Your task to perform on an android device: turn off javascript in the chrome app Image 0: 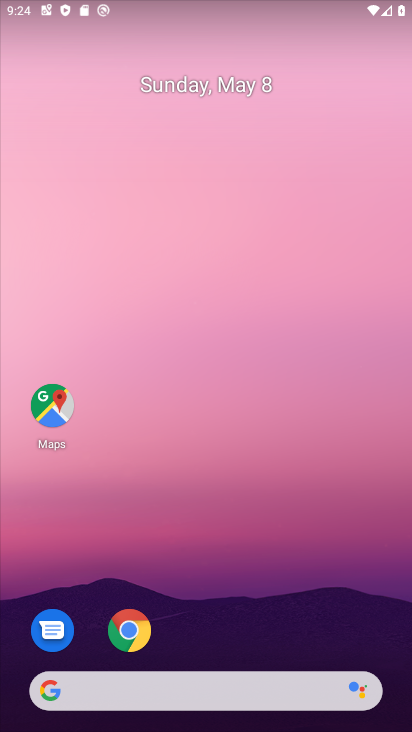
Step 0: press home button
Your task to perform on an android device: turn off javascript in the chrome app Image 1: 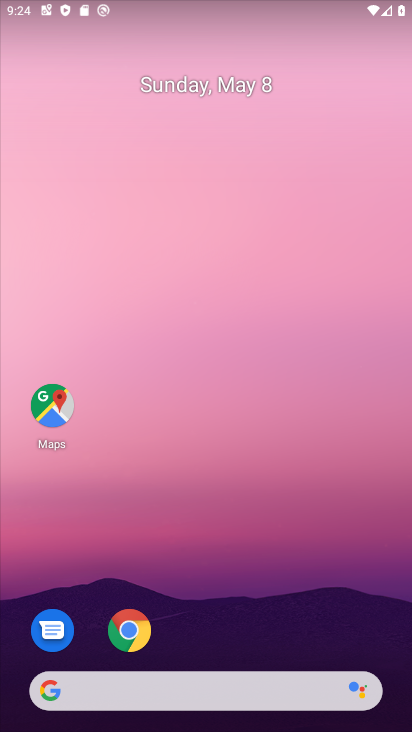
Step 1: drag from (167, 690) to (261, 175)
Your task to perform on an android device: turn off javascript in the chrome app Image 2: 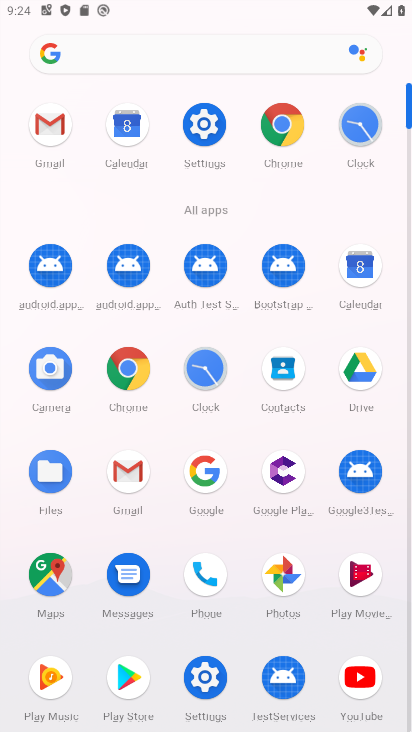
Step 2: click (289, 134)
Your task to perform on an android device: turn off javascript in the chrome app Image 3: 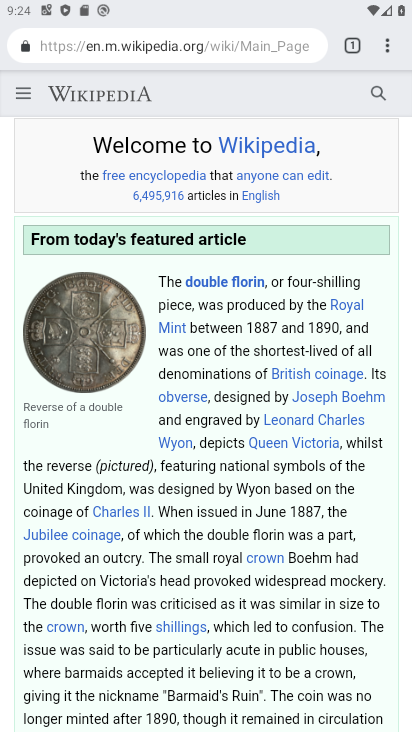
Step 3: drag from (389, 45) to (245, 548)
Your task to perform on an android device: turn off javascript in the chrome app Image 4: 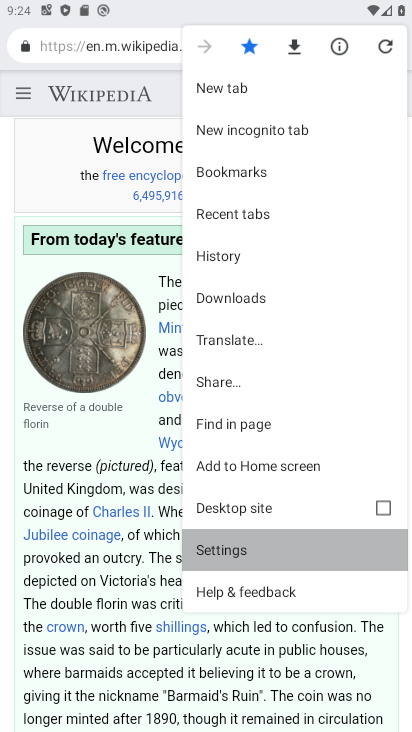
Step 4: click (245, 548)
Your task to perform on an android device: turn off javascript in the chrome app Image 5: 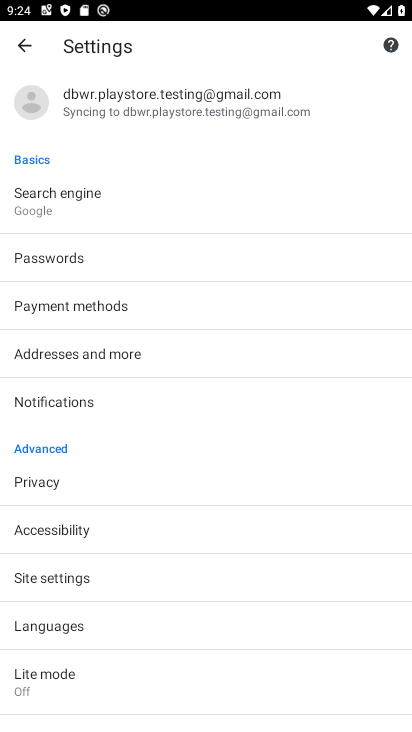
Step 5: click (71, 577)
Your task to perform on an android device: turn off javascript in the chrome app Image 6: 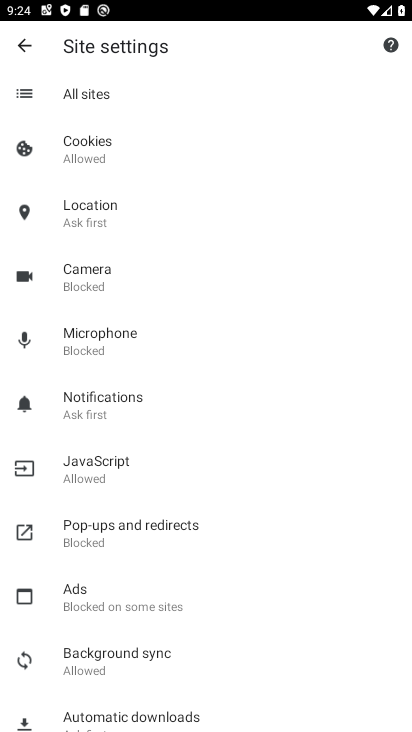
Step 6: click (94, 467)
Your task to perform on an android device: turn off javascript in the chrome app Image 7: 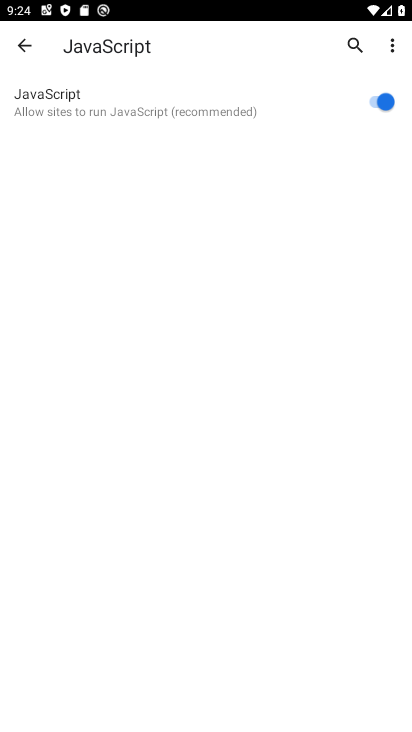
Step 7: click (369, 101)
Your task to perform on an android device: turn off javascript in the chrome app Image 8: 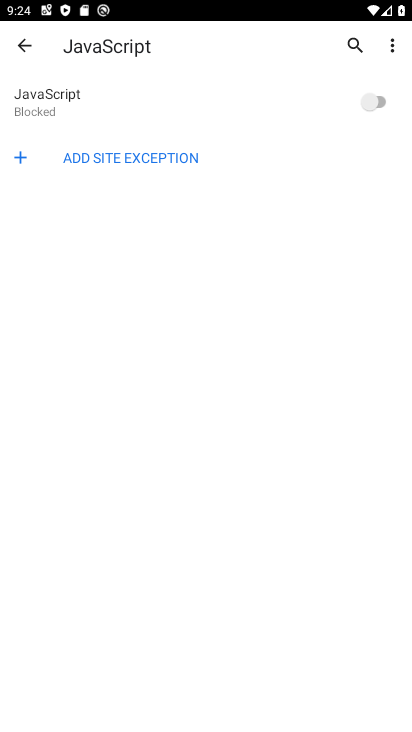
Step 8: task complete